Your task to perform on an android device: Open the phone app and click the voicemail tab. Image 0: 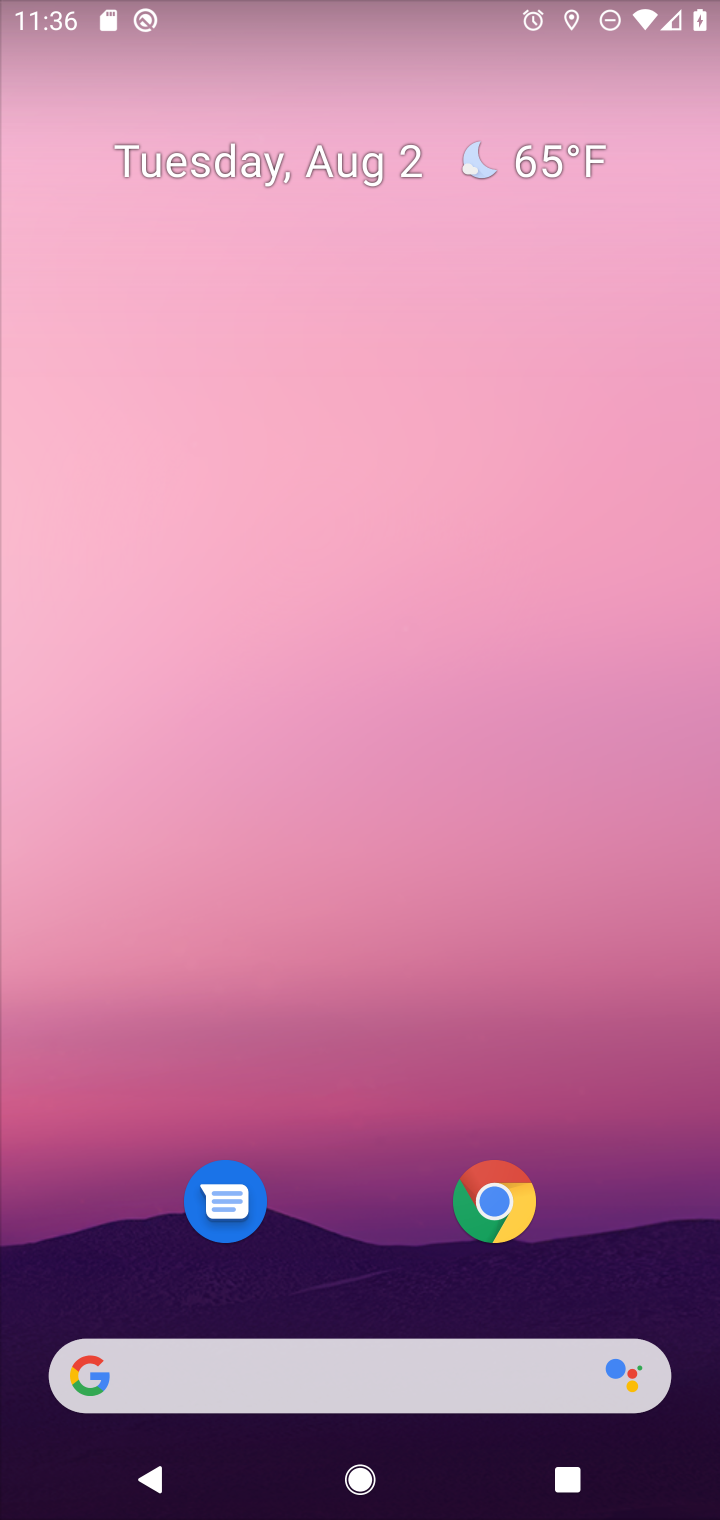
Step 0: click (508, 1191)
Your task to perform on an android device: Open the phone app and click the voicemail tab. Image 1: 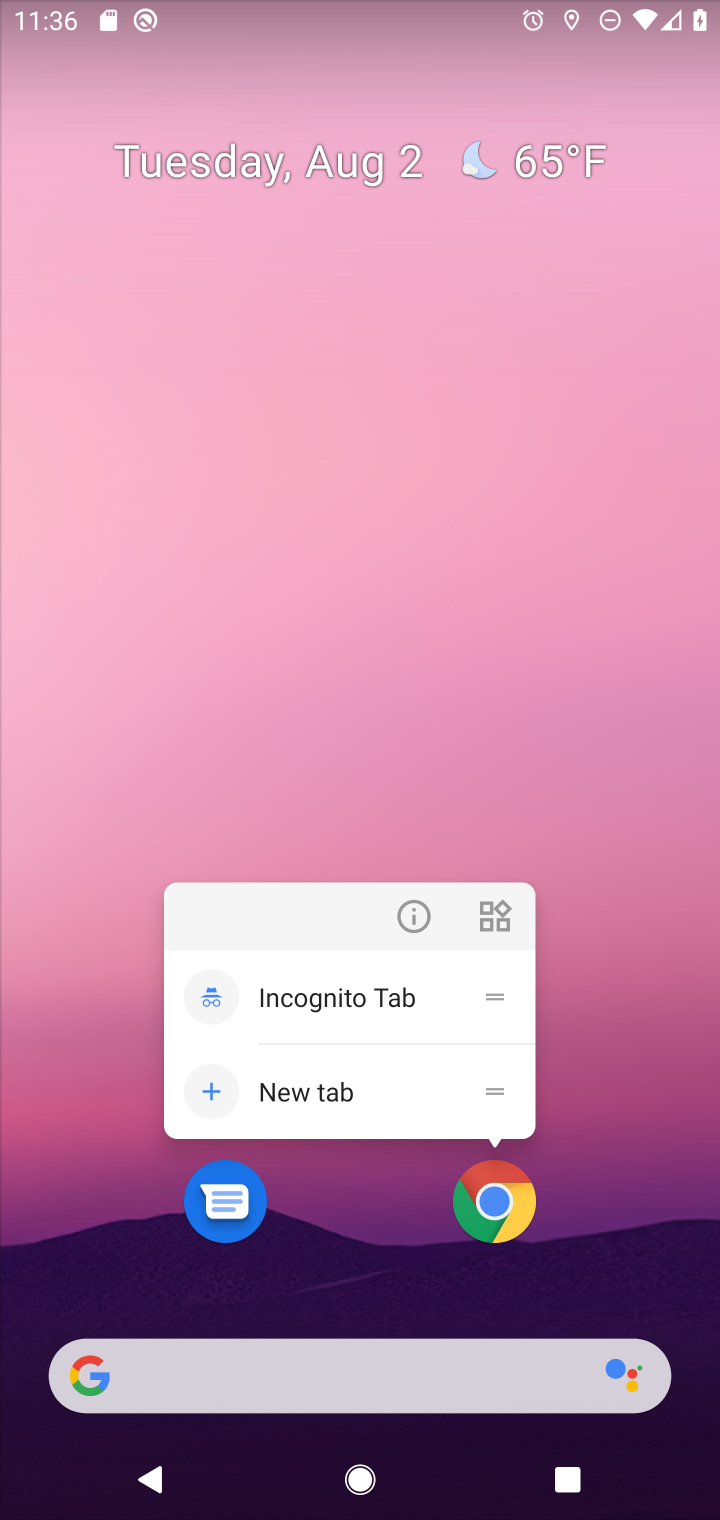
Step 1: press back button
Your task to perform on an android device: Open the phone app and click the voicemail tab. Image 2: 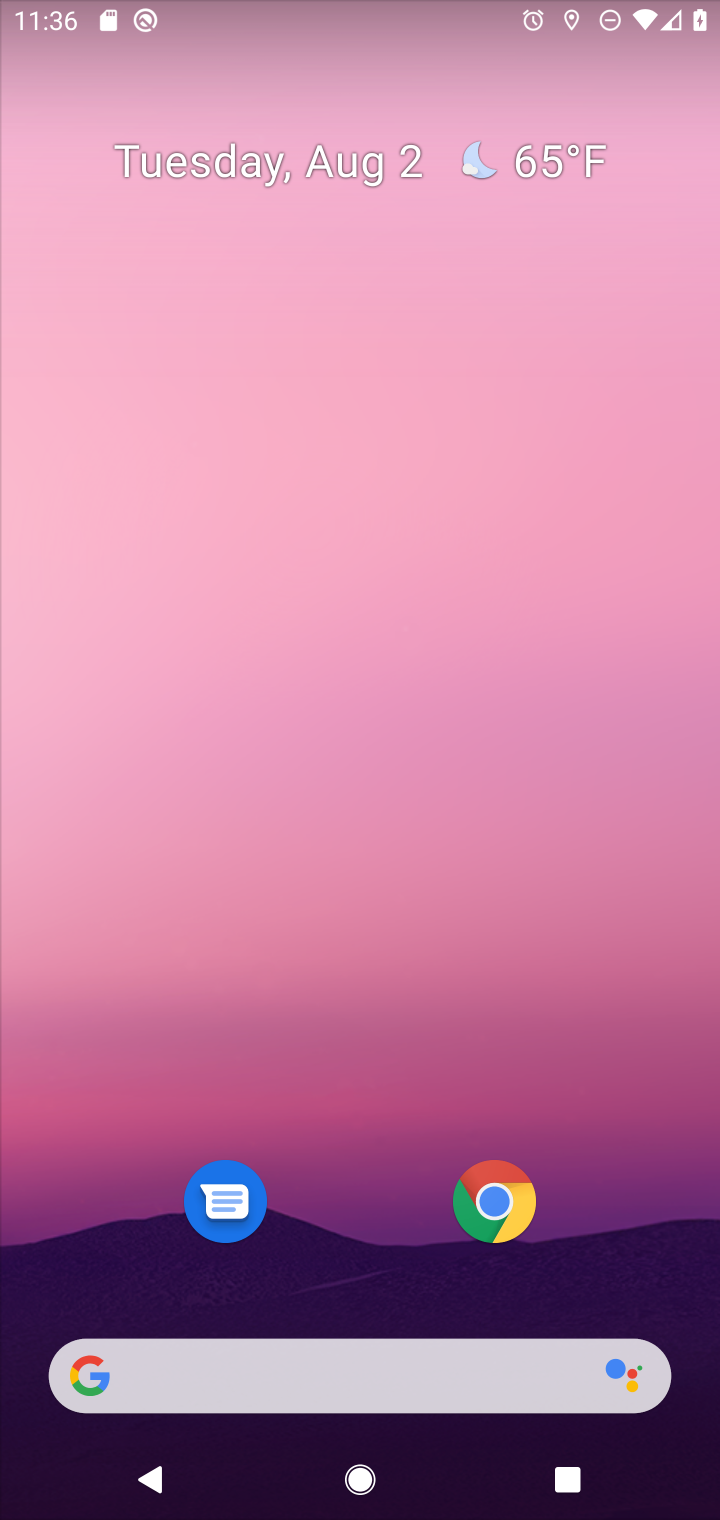
Step 2: drag from (337, 1301) to (337, 88)
Your task to perform on an android device: Open the phone app and click the voicemail tab. Image 3: 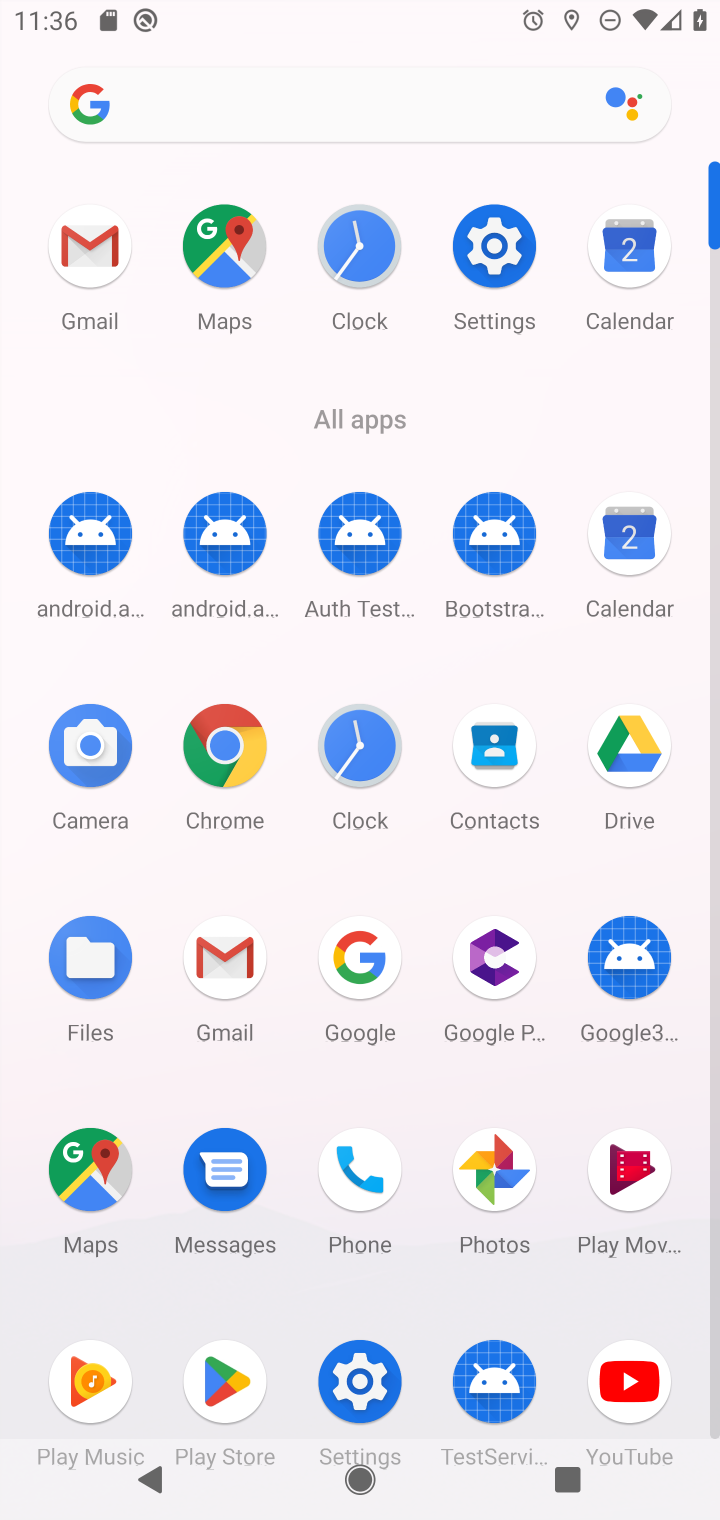
Step 3: click (350, 1165)
Your task to perform on an android device: Open the phone app and click the voicemail tab. Image 4: 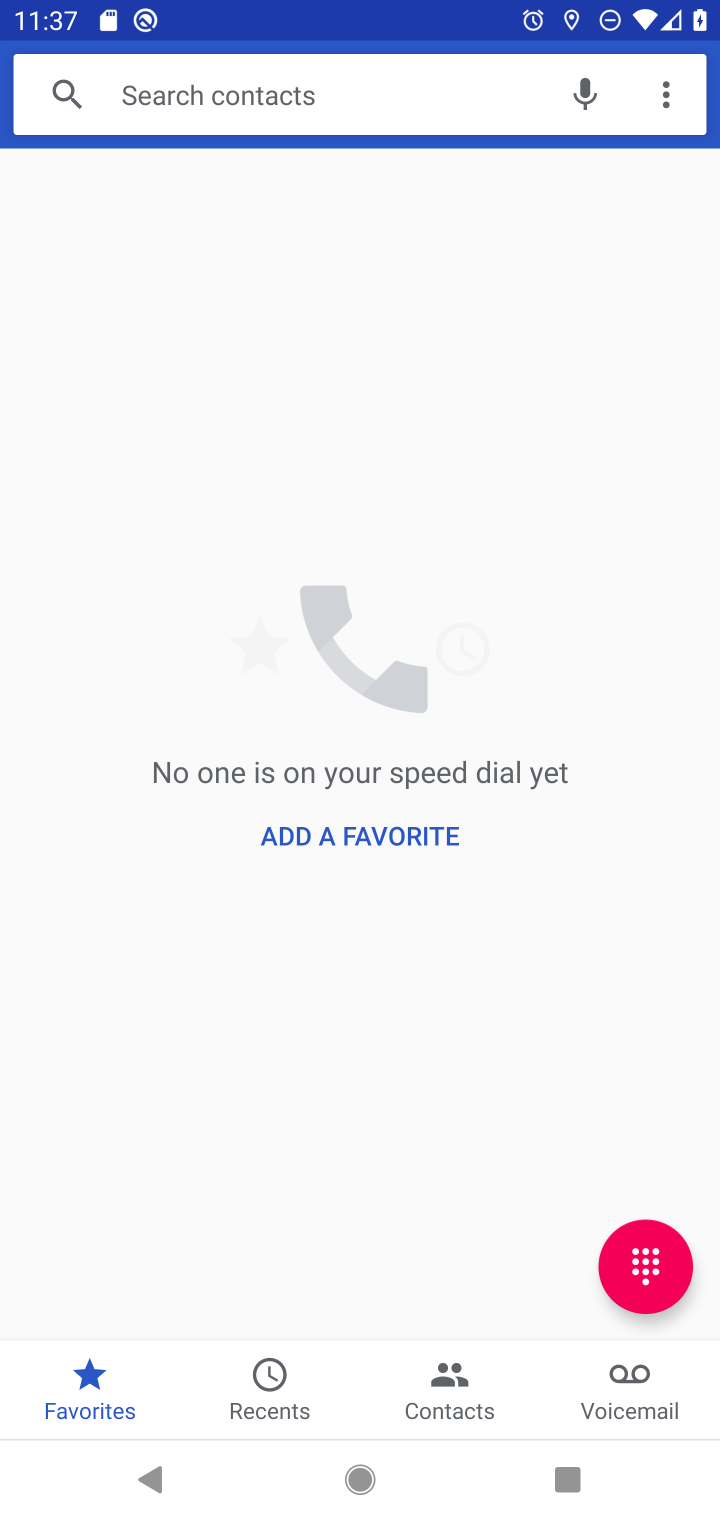
Step 4: click (616, 1387)
Your task to perform on an android device: Open the phone app and click the voicemail tab. Image 5: 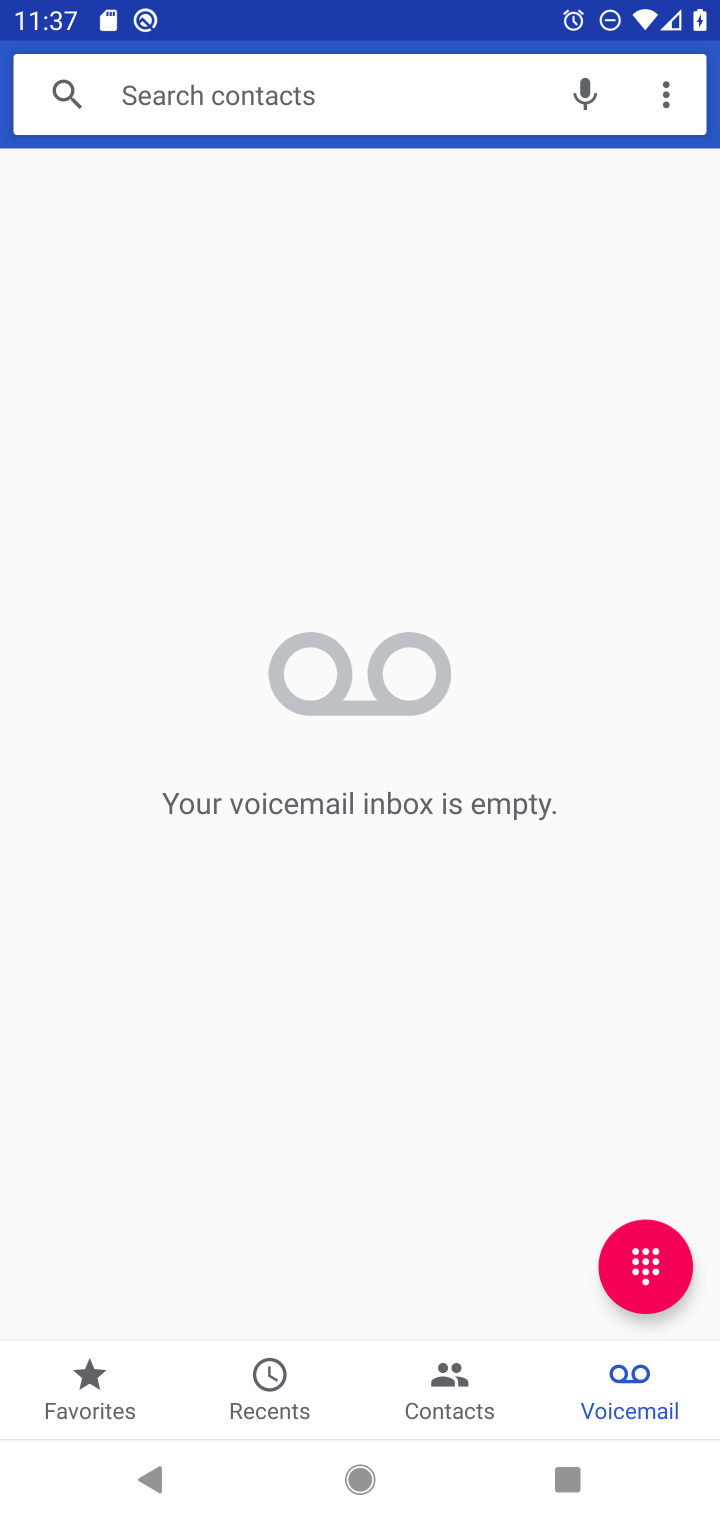
Step 5: task complete